Your task to perform on an android device: show emergency info Image 0: 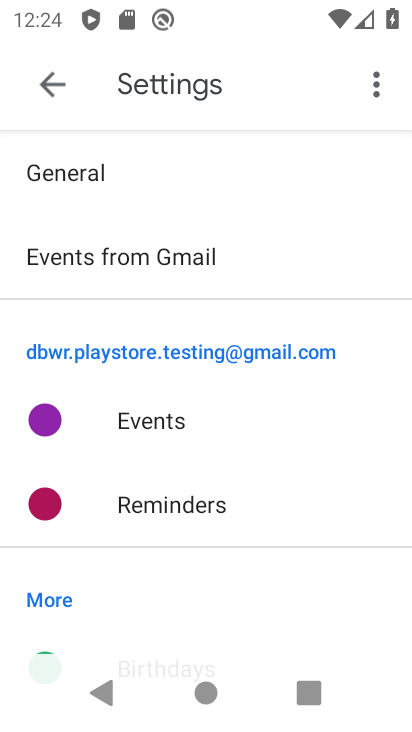
Step 0: press back button
Your task to perform on an android device: show emergency info Image 1: 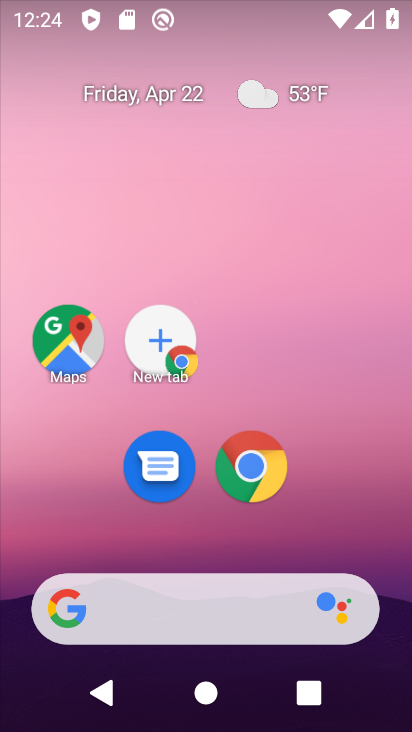
Step 1: drag from (383, 603) to (241, 15)
Your task to perform on an android device: show emergency info Image 2: 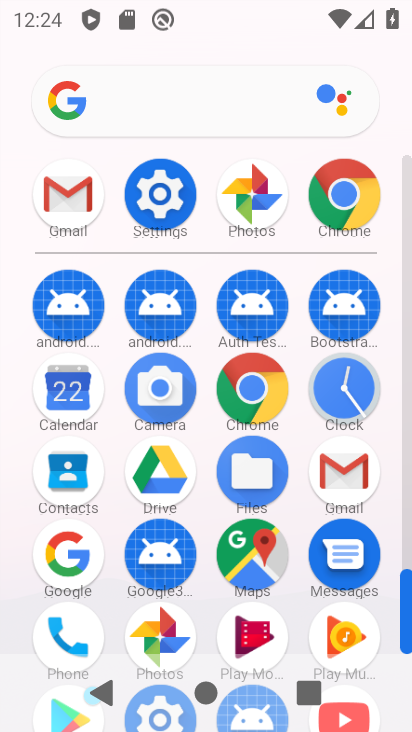
Step 2: drag from (8, 569) to (17, 249)
Your task to perform on an android device: show emergency info Image 3: 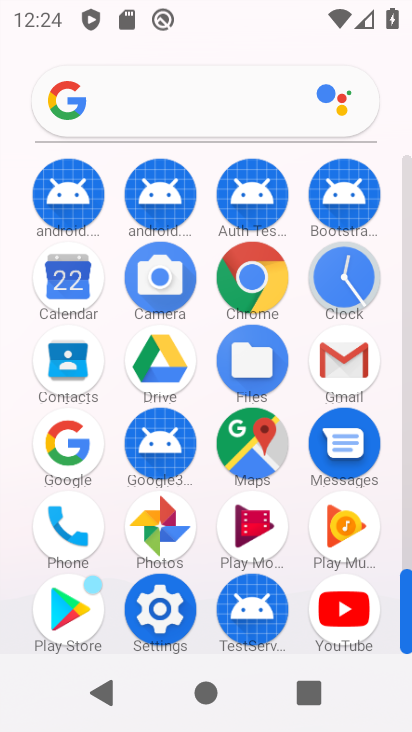
Step 3: click (160, 604)
Your task to perform on an android device: show emergency info Image 4: 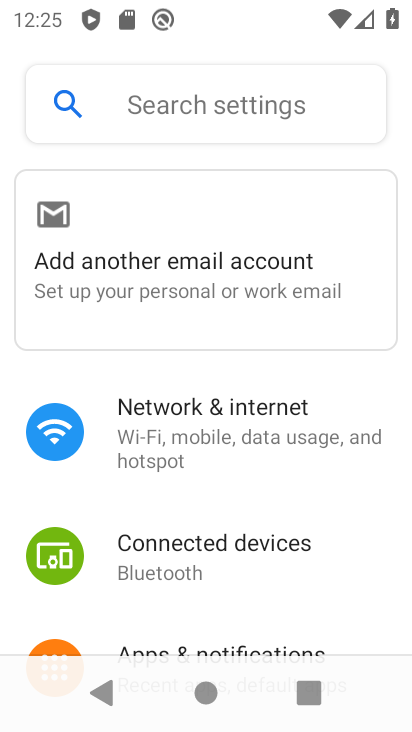
Step 4: drag from (348, 578) to (316, 178)
Your task to perform on an android device: show emergency info Image 5: 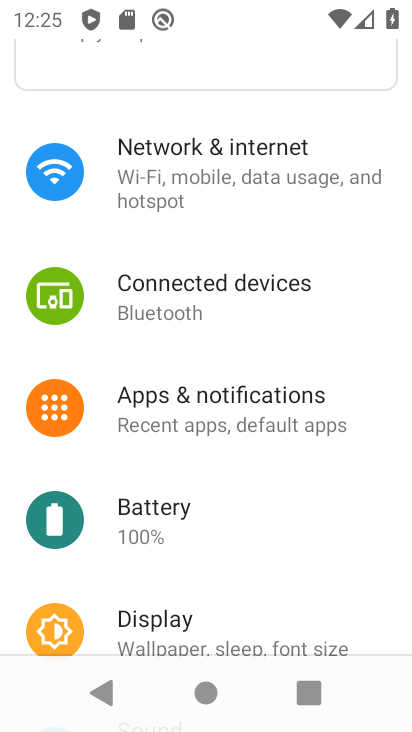
Step 5: drag from (324, 575) to (321, 143)
Your task to perform on an android device: show emergency info Image 6: 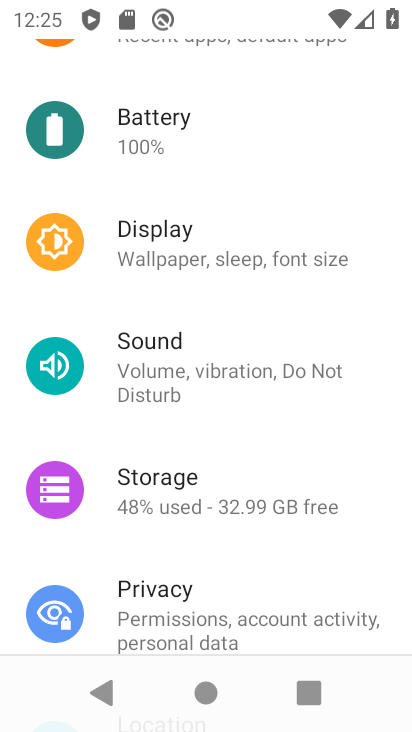
Step 6: drag from (330, 569) to (313, 128)
Your task to perform on an android device: show emergency info Image 7: 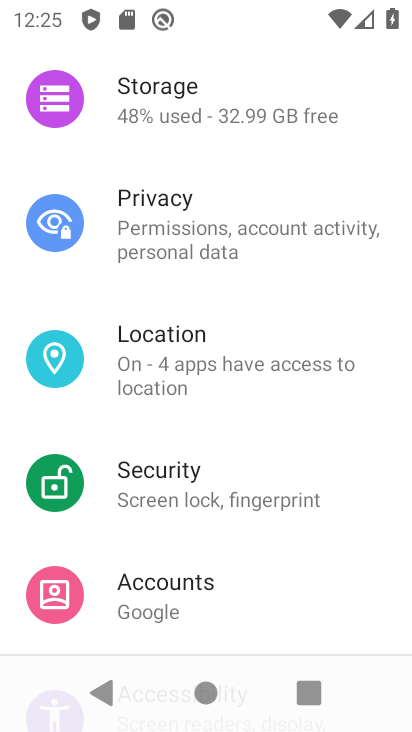
Step 7: drag from (317, 548) to (293, 144)
Your task to perform on an android device: show emergency info Image 8: 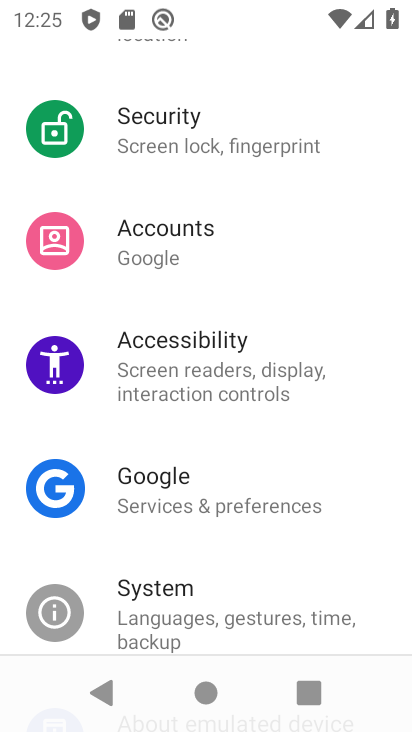
Step 8: drag from (307, 551) to (278, 204)
Your task to perform on an android device: show emergency info Image 9: 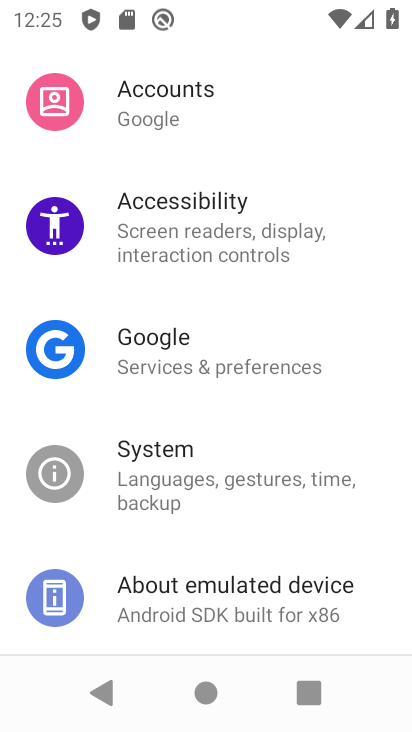
Step 9: drag from (296, 583) to (287, 234)
Your task to perform on an android device: show emergency info Image 10: 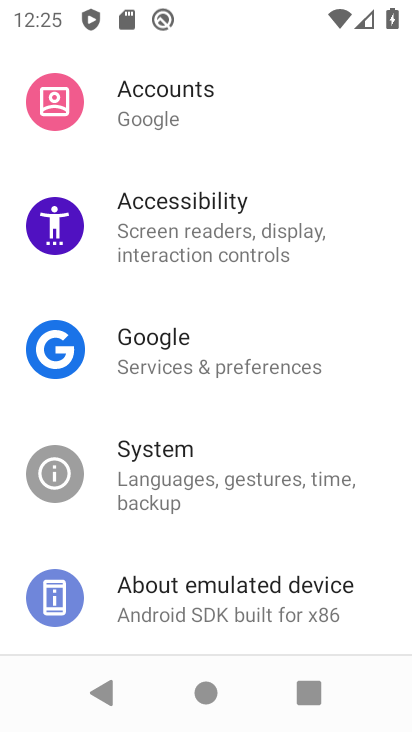
Step 10: click (285, 596)
Your task to perform on an android device: show emergency info Image 11: 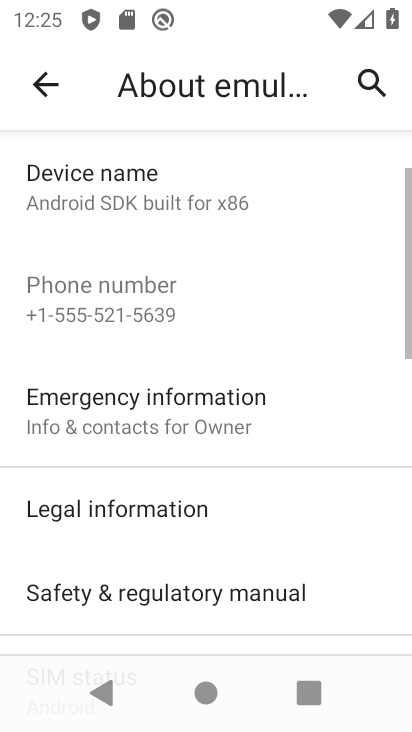
Step 11: drag from (301, 541) to (302, 124)
Your task to perform on an android device: show emergency info Image 12: 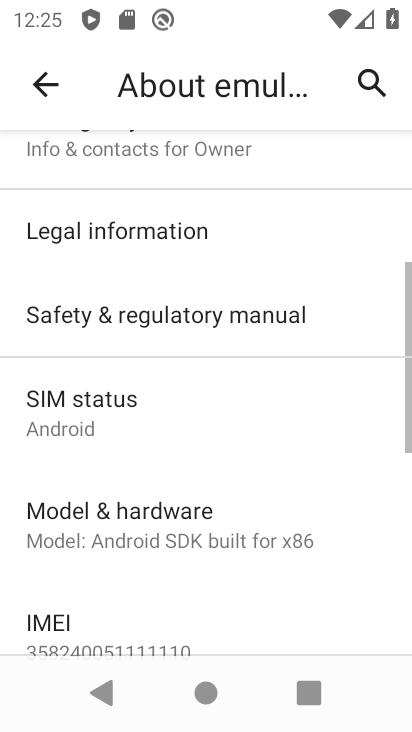
Step 12: drag from (276, 583) to (294, 229)
Your task to perform on an android device: show emergency info Image 13: 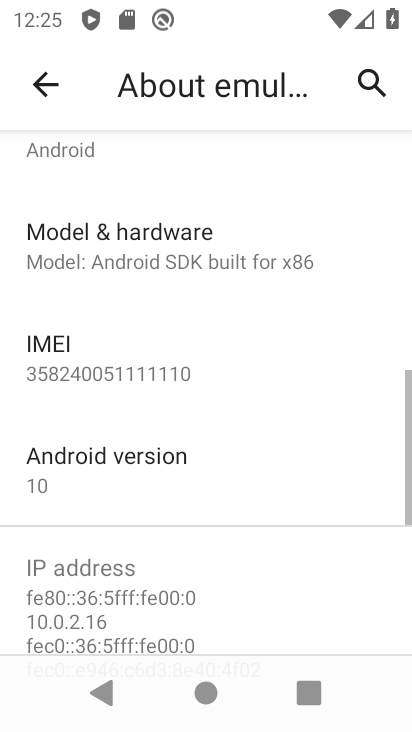
Step 13: drag from (288, 517) to (285, 190)
Your task to perform on an android device: show emergency info Image 14: 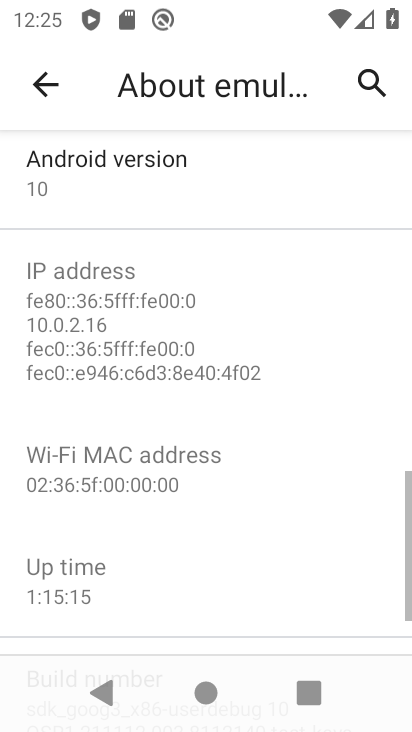
Step 14: drag from (243, 561) to (268, 232)
Your task to perform on an android device: show emergency info Image 15: 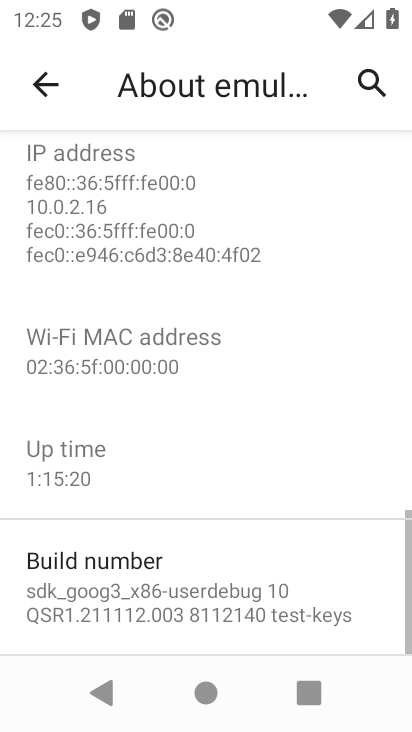
Step 15: drag from (289, 541) to (276, 244)
Your task to perform on an android device: show emergency info Image 16: 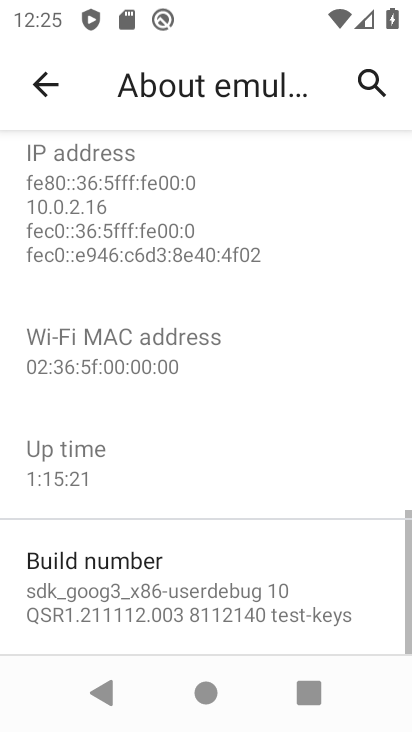
Step 16: drag from (283, 327) to (296, 623)
Your task to perform on an android device: show emergency info Image 17: 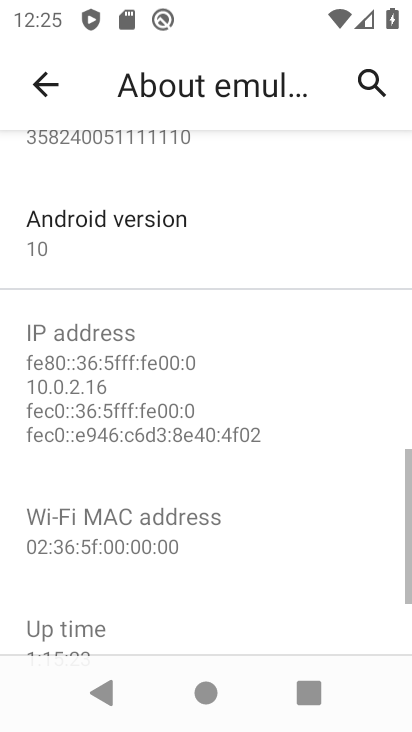
Step 17: drag from (281, 244) to (258, 609)
Your task to perform on an android device: show emergency info Image 18: 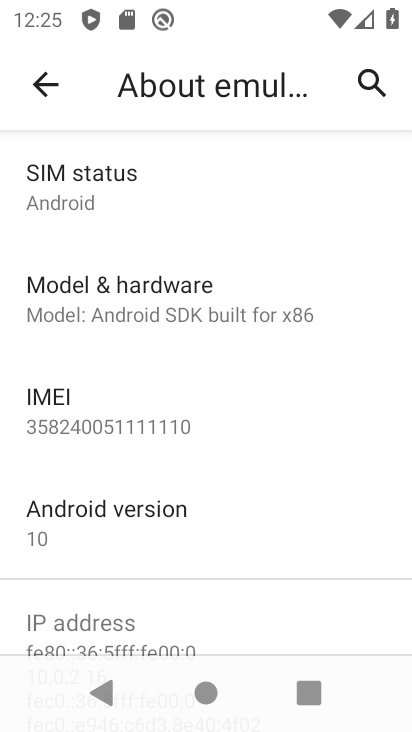
Step 18: drag from (254, 228) to (261, 565)
Your task to perform on an android device: show emergency info Image 19: 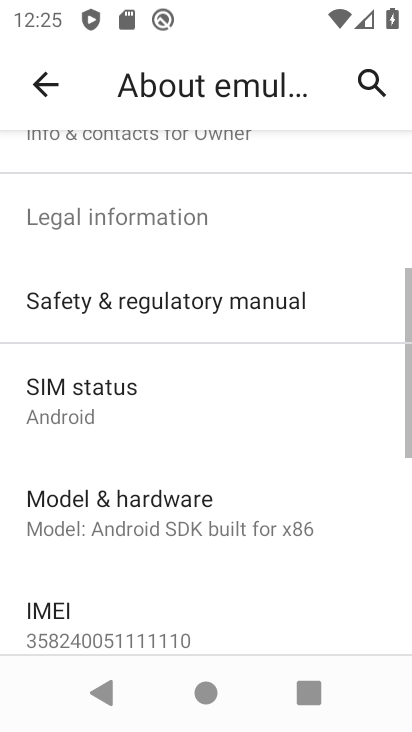
Step 19: drag from (303, 198) to (299, 454)
Your task to perform on an android device: show emergency info Image 20: 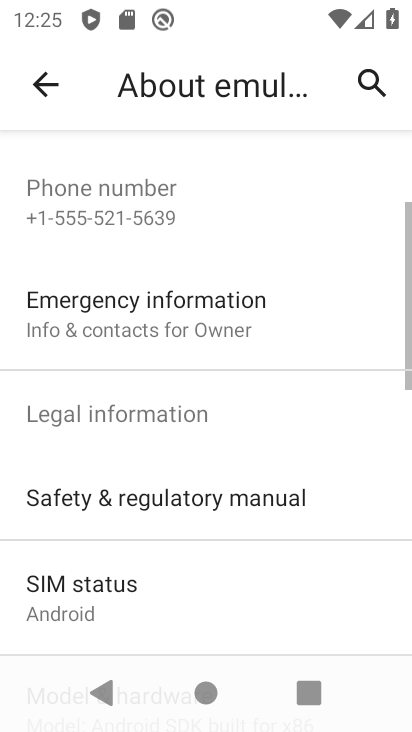
Step 20: click (271, 304)
Your task to perform on an android device: show emergency info Image 21: 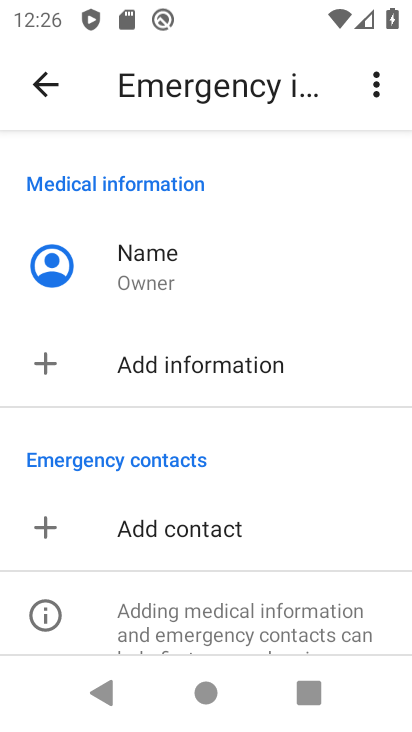
Step 21: task complete